Your task to perform on an android device: search for starred emails in the gmail app Image 0: 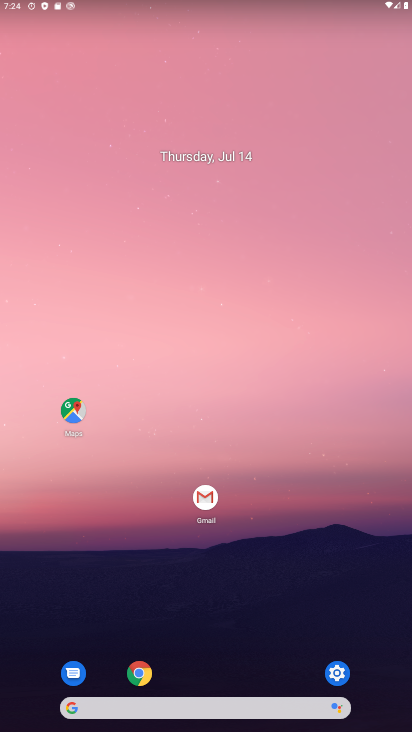
Step 0: press home button
Your task to perform on an android device: search for starred emails in the gmail app Image 1: 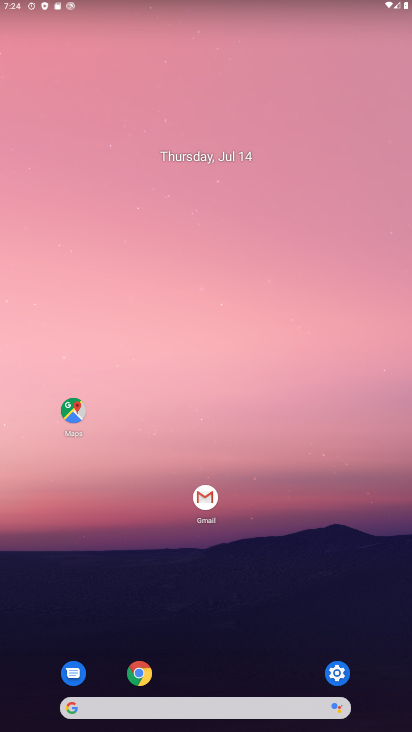
Step 1: click (205, 510)
Your task to perform on an android device: search for starred emails in the gmail app Image 2: 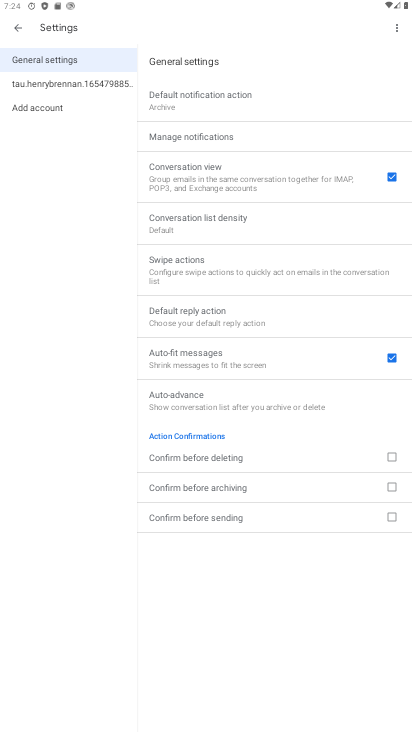
Step 2: click (23, 37)
Your task to perform on an android device: search for starred emails in the gmail app Image 3: 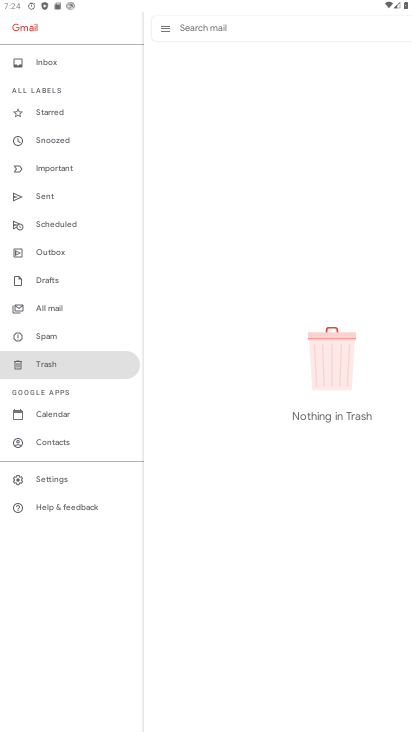
Step 3: click (52, 104)
Your task to perform on an android device: search for starred emails in the gmail app Image 4: 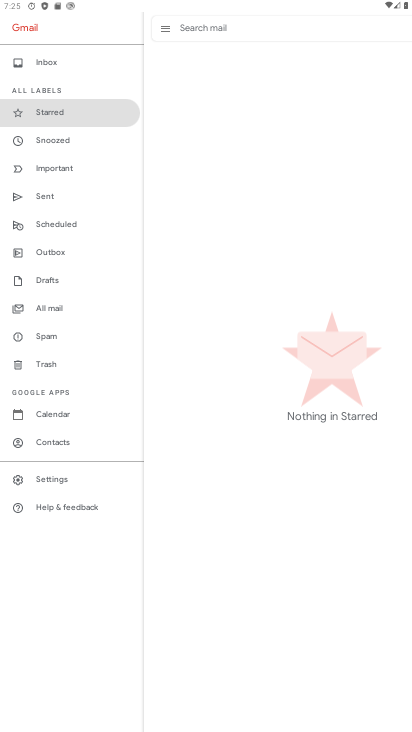
Step 4: task complete